Your task to perform on an android device: Open the web browser Image 0: 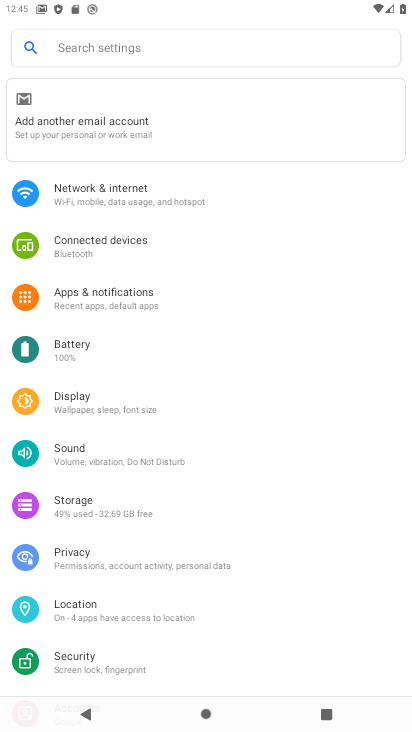
Step 0: press home button
Your task to perform on an android device: Open the web browser Image 1: 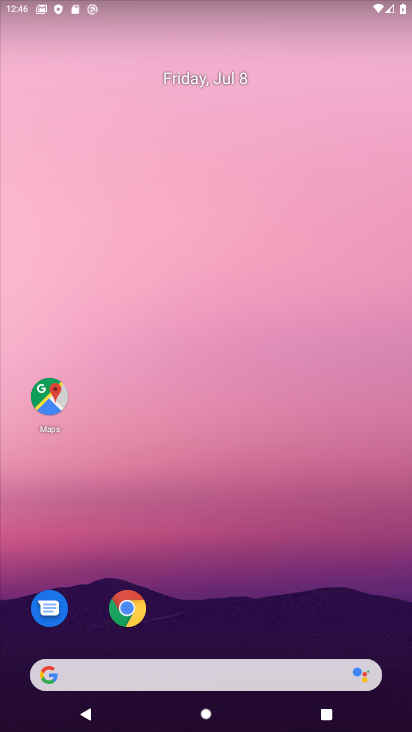
Step 1: click (128, 612)
Your task to perform on an android device: Open the web browser Image 2: 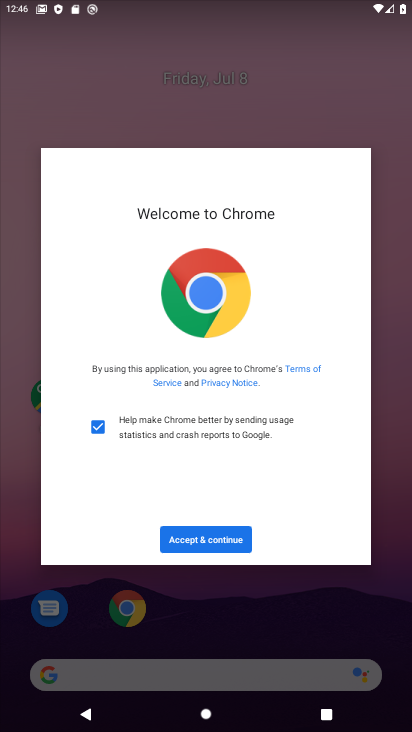
Step 2: click (200, 540)
Your task to perform on an android device: Open the web browser Image 3: 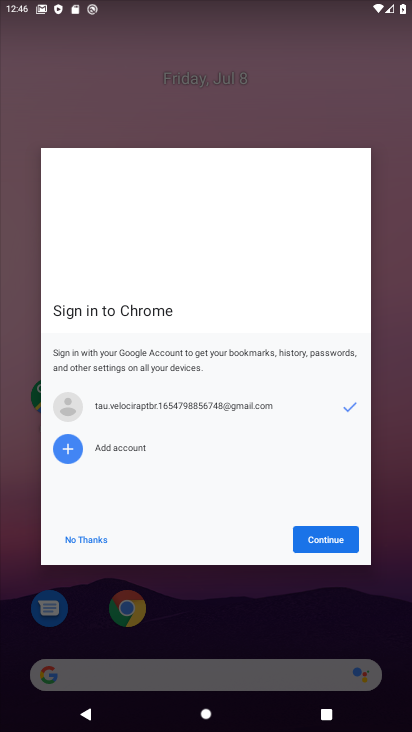
Step 3: click (333, 544)
Your task to perform on an android device: Open the web browser Image 4: 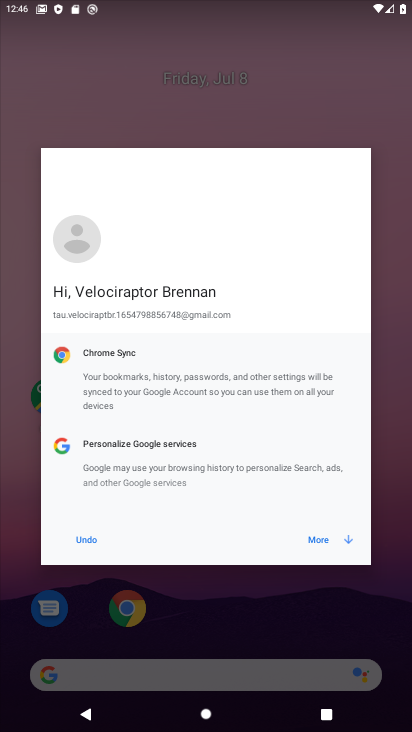
Step 4: click (315, 540)
Your task to perform on an android device: Open the web browser Image 5: 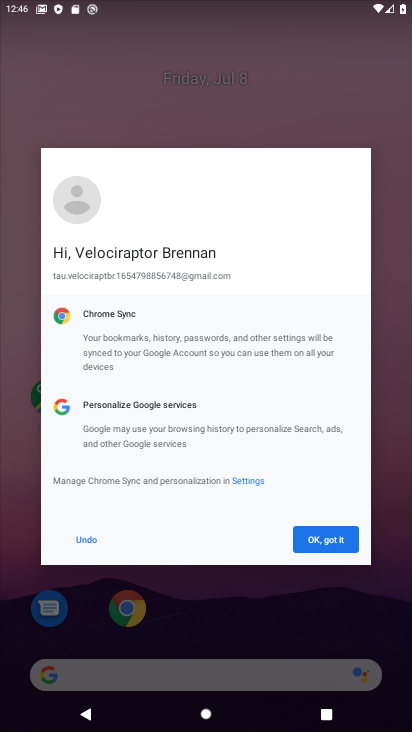
Step 5: click (330, 538)
Your task to perform on an android device: Open the web browser Image 6: 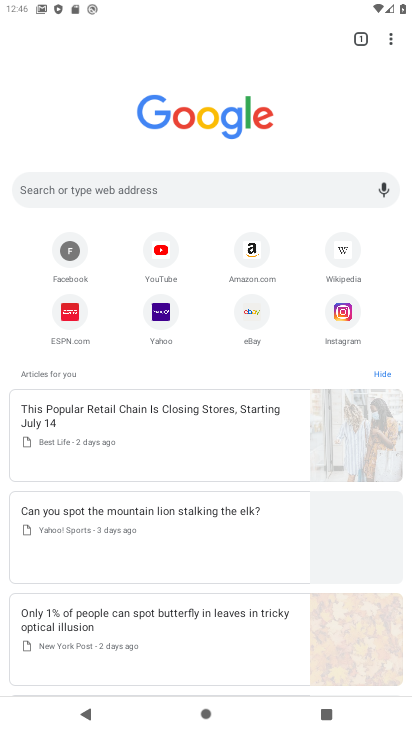
Step 6: task complete